Your task to perform on an android device: turn off airplane mode Image 0: 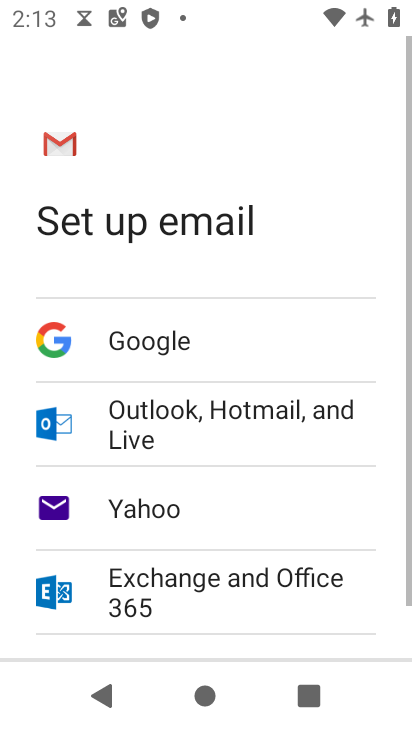
Step 0: press home button
Your task to perform on an android device: turn off airplane mode Image 1: 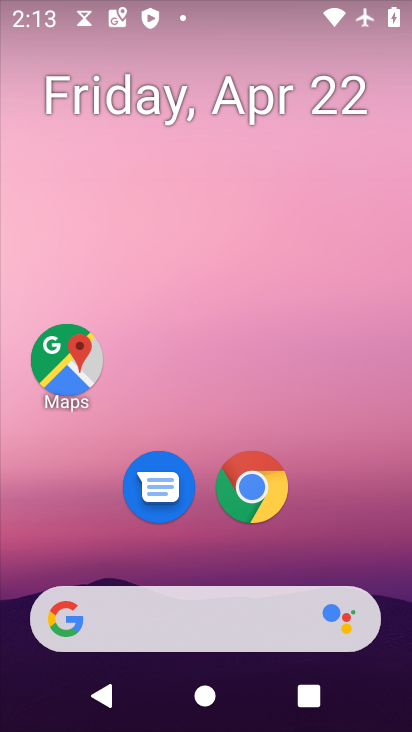
Step 1: drag from (139, 620) to (270, 148)
Your task to perform on an android device: turn off airplane mode Image 2: 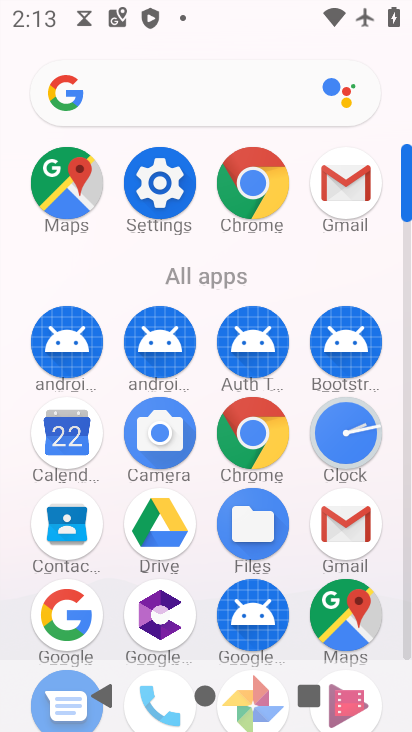
Step 2: click (174, 190)
Your task to perform on an android device: turn off airplane mode Image 3: 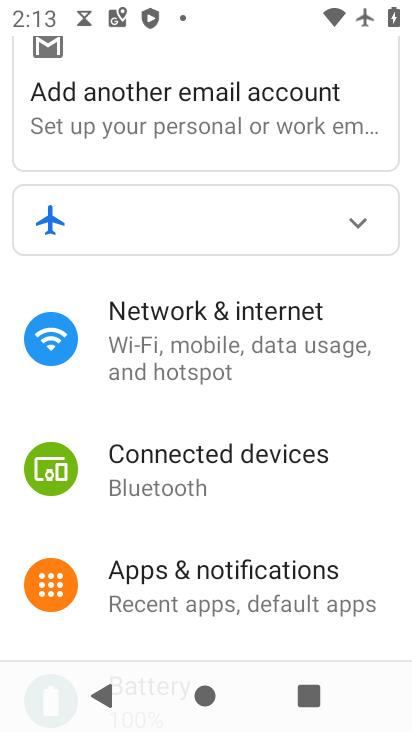
Step 3: click (239, 336)
Your task to perform on an android device: turn off airplane mode Image 4: 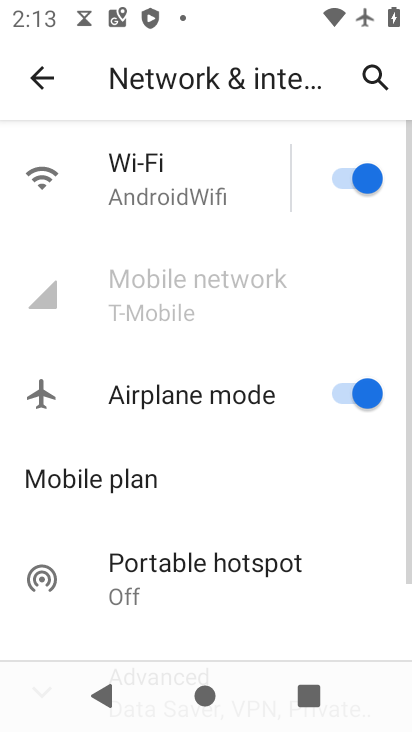
Step 4: click (351, 394)
Your task to perform on an android device: turn off airplane mode Image 5: 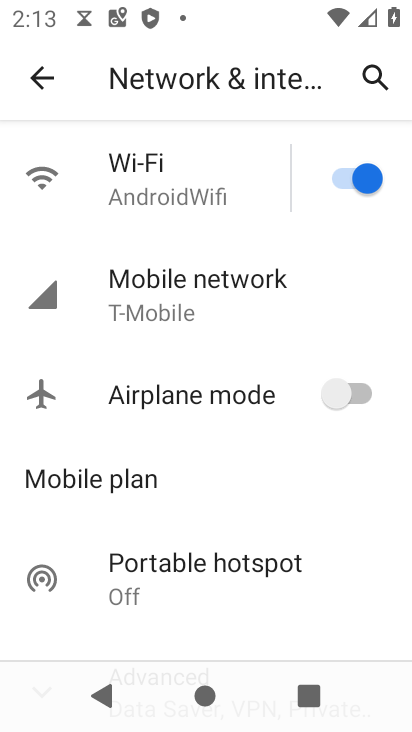
Step 5: task complete